Your task to perform on an android device: When is my next appointment? Image 0: 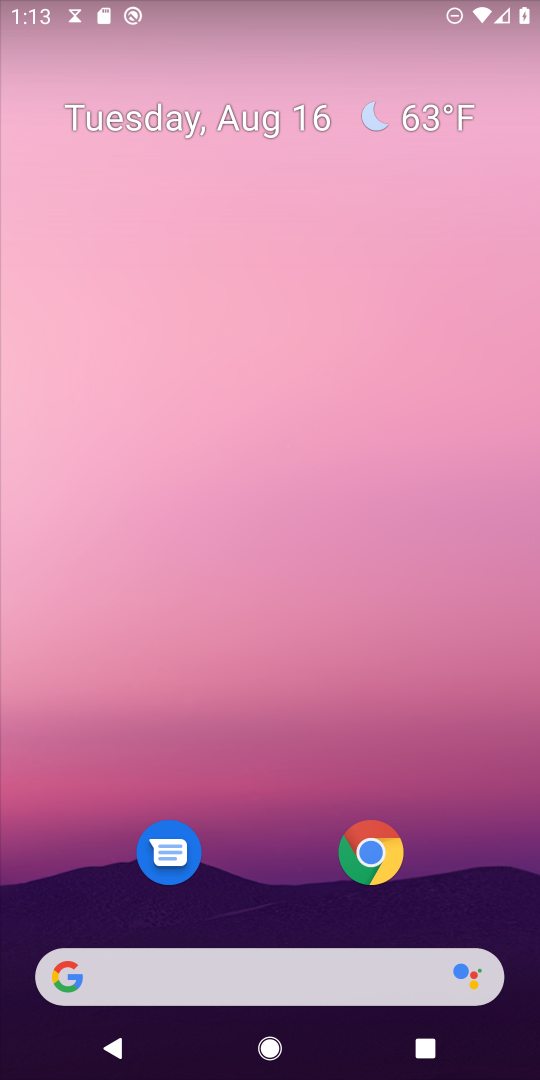
Step 0: drag from (256, 840) to (338, 18)
Your task to perform on an android device: When is my next appointment? Image 1: 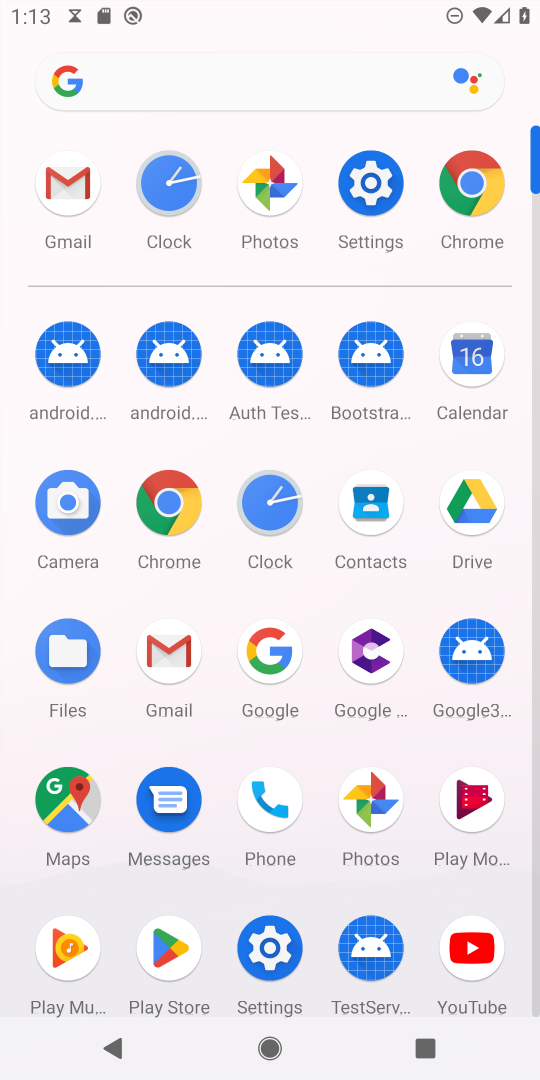
Step 1: click (461, 360)
Your task to perform on an android device: When is my next appointment? Image 2: 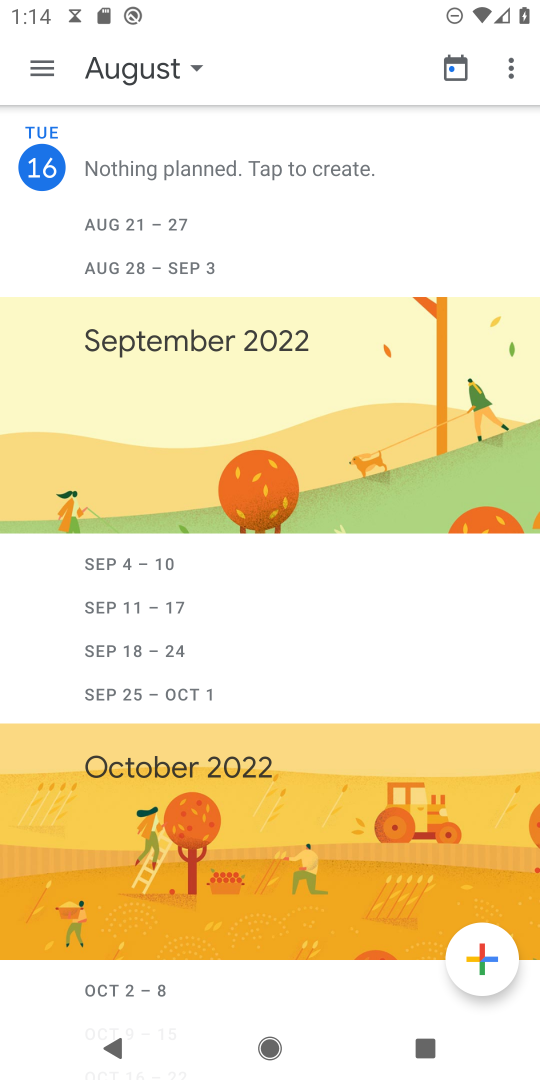
Step 2: task complete